Your task to perform on an android device: turn on priority inbox in the gmail app Image 0: 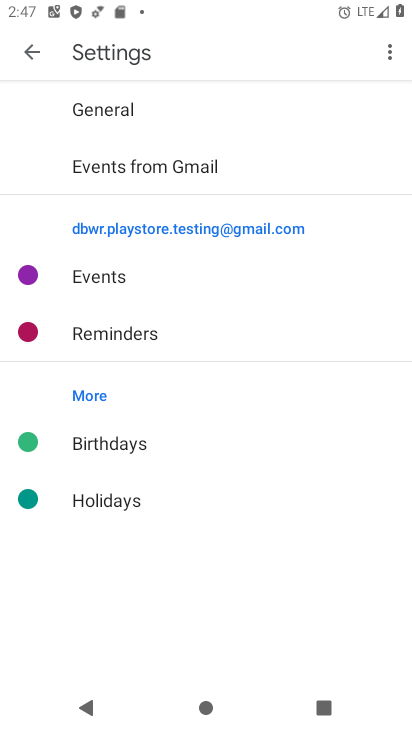
Step 0: press home button
Your task to perform on an android device: turn on priority inbox in the gmail app Image 1: 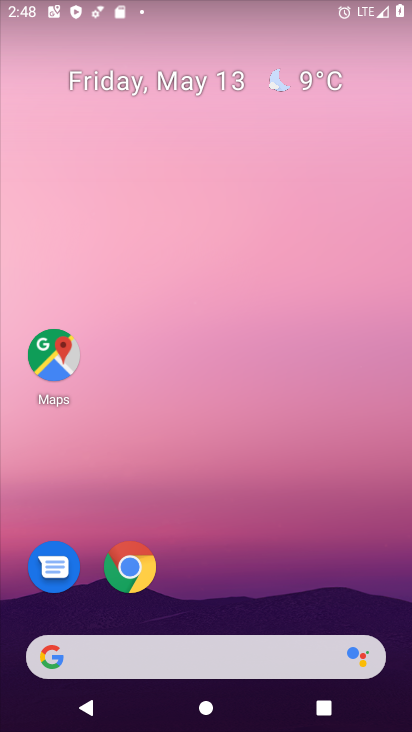
Step 1: drag from (216, 622) to (225, 0)
Your task to perform on an android device: turn on priority inbox in the gmail app Image 2: 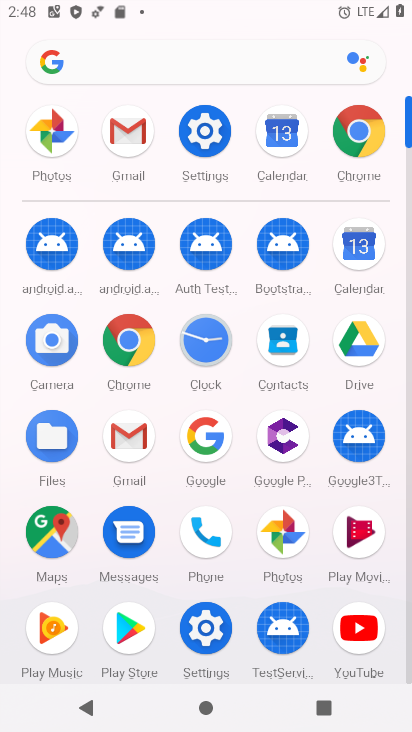
Step 2: click (144, 440)
Your task to perform on an android device: turn on priority inbox in the gmail app Image 3: 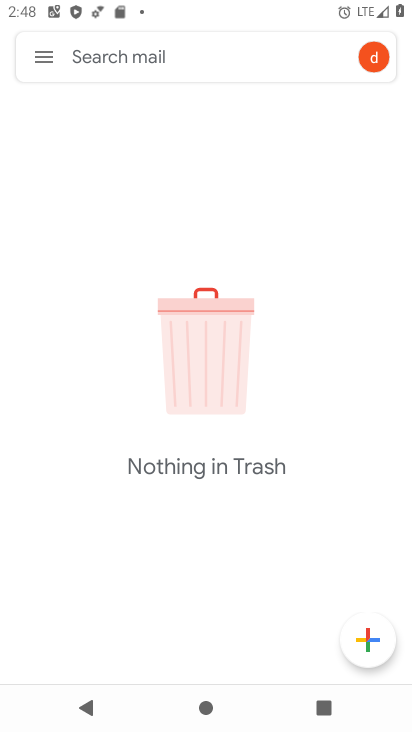
Step 3: click (58, 52)
Your task to perform on an android device: turn on priority inbox in the gmail app Image 4: 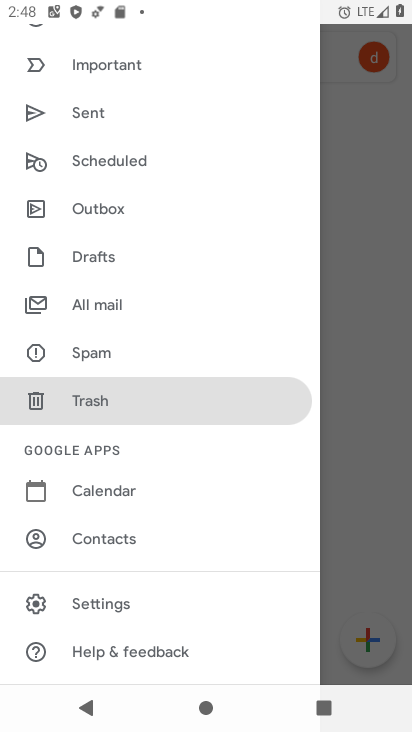
Step 4: click (106, 607)
Your task to perform on an android device: turn on priority inbox in the gmail app Image 5: 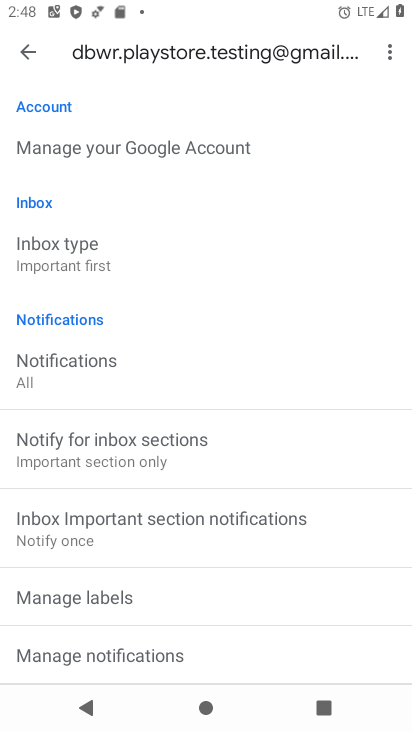
Step 5: click (85, 253)
Your task to perform on an android device: turn on priority inbox in the gmail app Image 6: 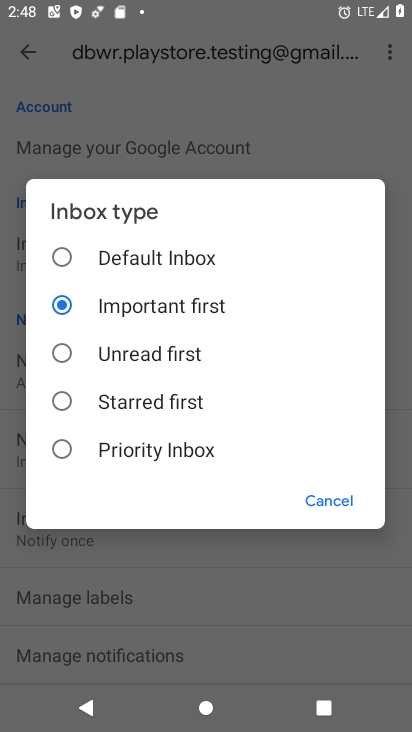
Step 6: click (128, 452)
Your task to perform on an android device: turn on priority inbox in the gmail app Image 7: 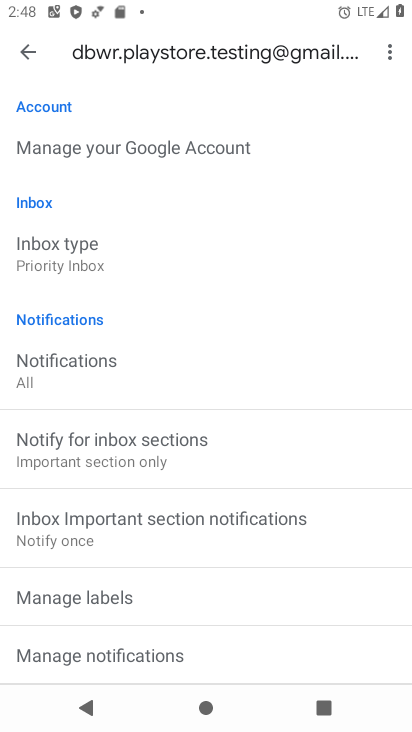
Step 7: task complete